Your task to perform on an android device: set the stopwatch Image 0: 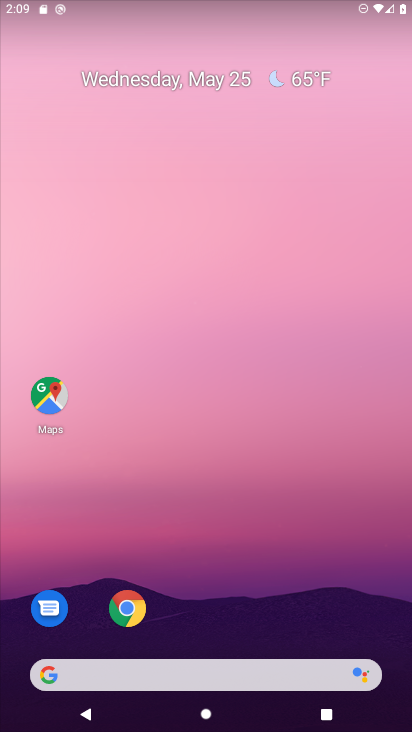
Step 0: drag from (369, 616) to (326, 167)
Your task to perform on an android device: set the stopwatch Image 1: 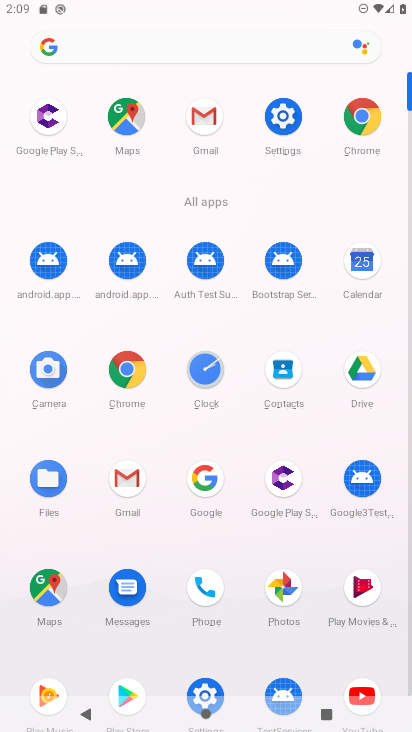
Step 1: click (411, 682)
Your task to perform on an android device: set the stopwatch Image 2: 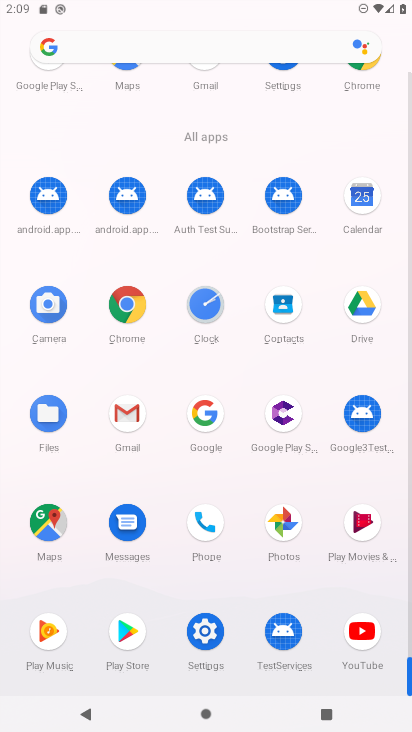
Step 2: click (200, 302)
Your task to perform on an android device: set the stopwatch Image 3: 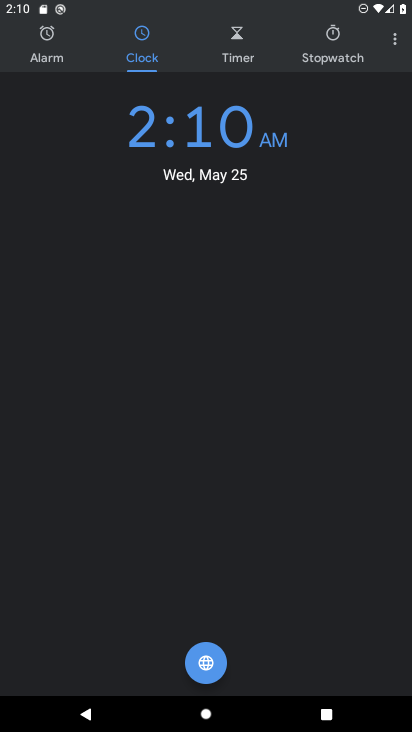
Step 3: click (335, 44)
Your task to perform on an android device: set the stopwatch Image 4: 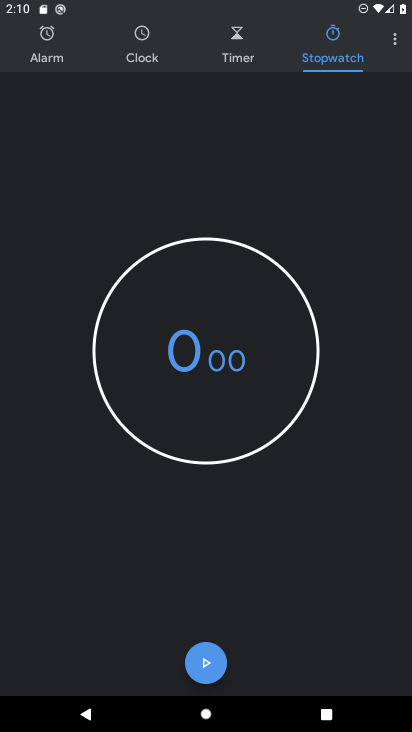
Step 4: task complete